Your task to perform on an android device: Go to ESPN.com Image 0: 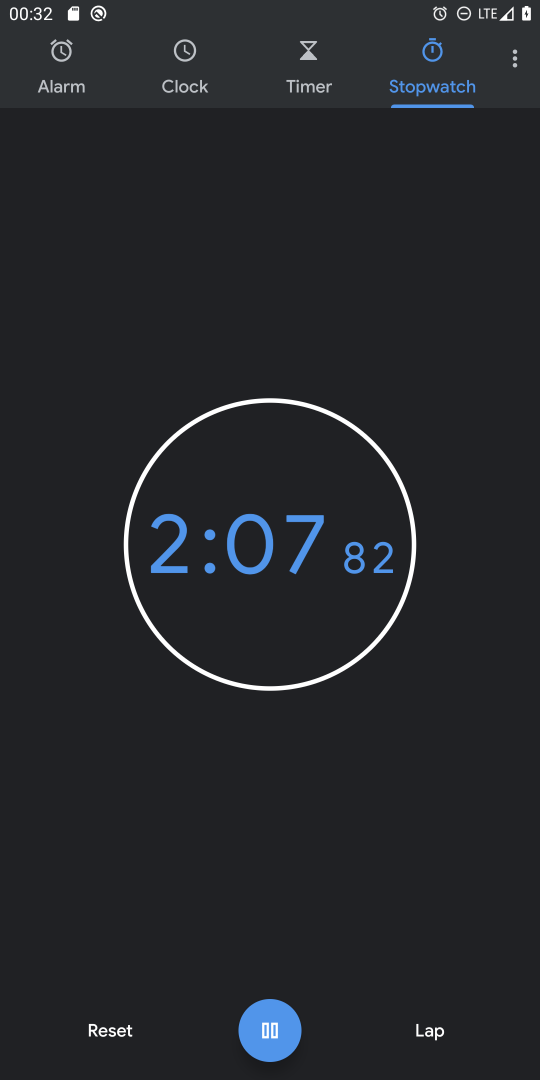
Step 0: press home button
Your task to perform on an android device: Go to ESPN.com Image 1: 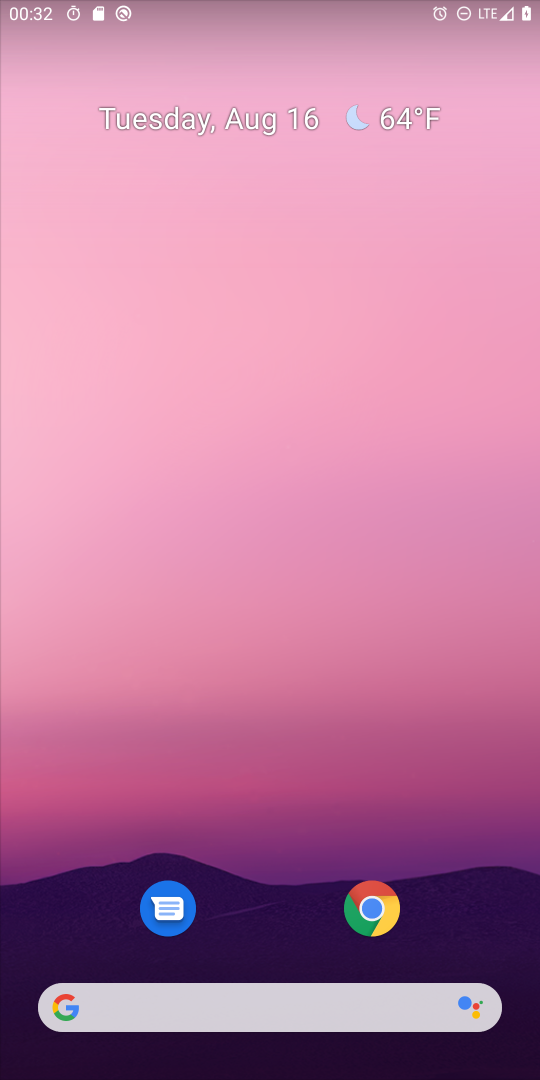
Step 1: click (372, 903)
Your task to perform on an android device: Go to ESPN.com Image 2: 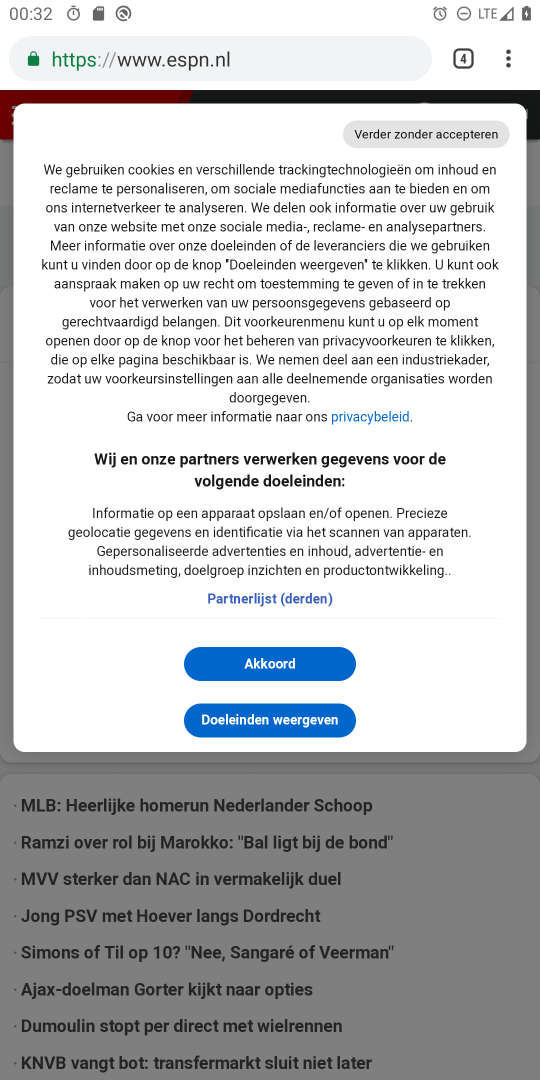
Step 2: task complete